Your task to perform on an android device: Open CNN.com Image 0: 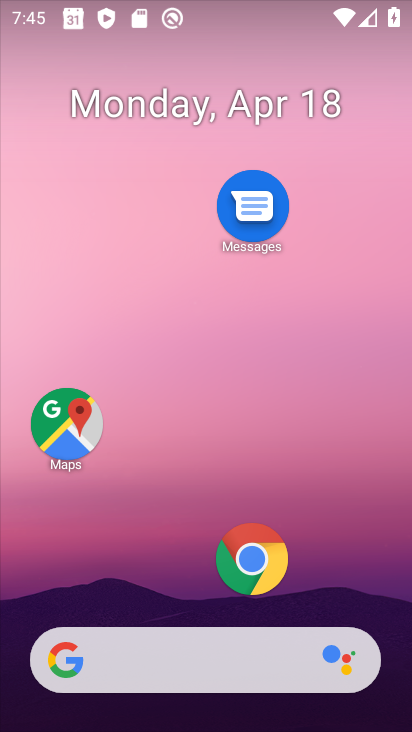
Step 0: click (214, 675)
Your task to perform on an android device: Open CNN.com Image 1: 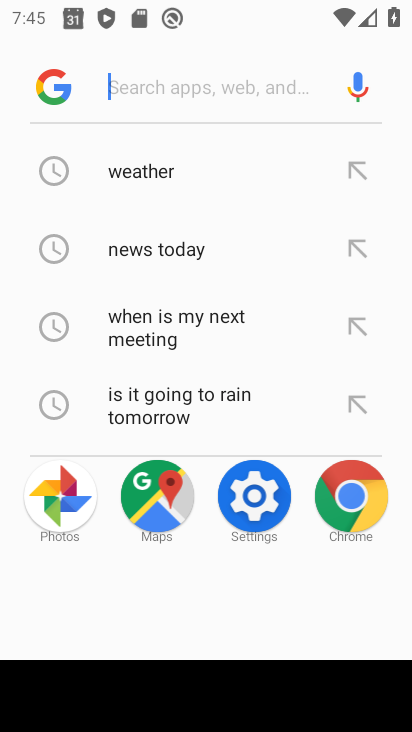
Step 1: type "CNN.com"
Your task to perform on an android device: Open CNN.com Image 2: 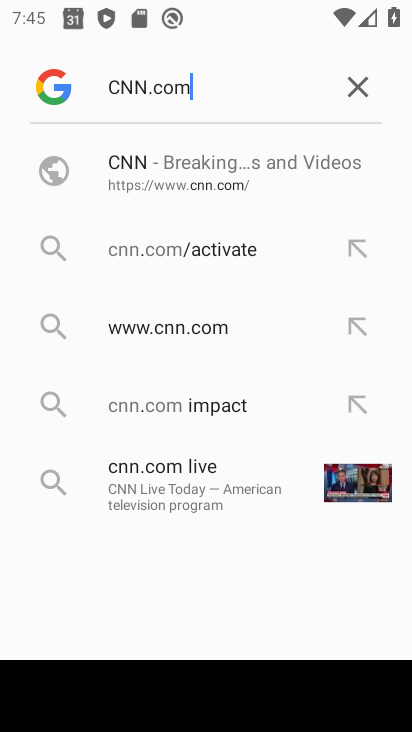
Step 2: click (266, 183)
Your task to perform on an android device: Open CNN.com Image 3: 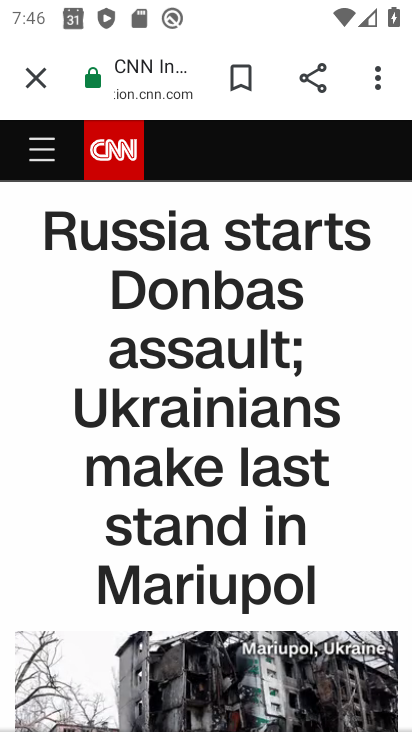
Step 3: task complete